Your task to perform on an android device: empty trash in google photos Image 0: 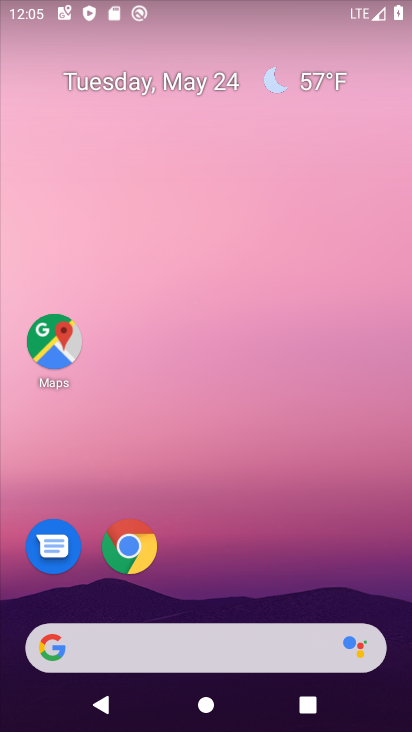
Step 0: drag from (198, 556) to (206, 160)
Your task to perform on an android device: empty trash in google photos Image 1: 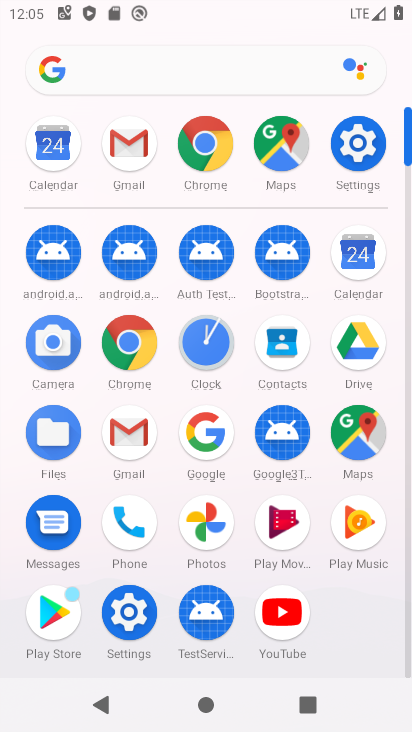
Step 1: click (193, 534)
Your task to perform on an android device: empty trash in google photos Image 2: 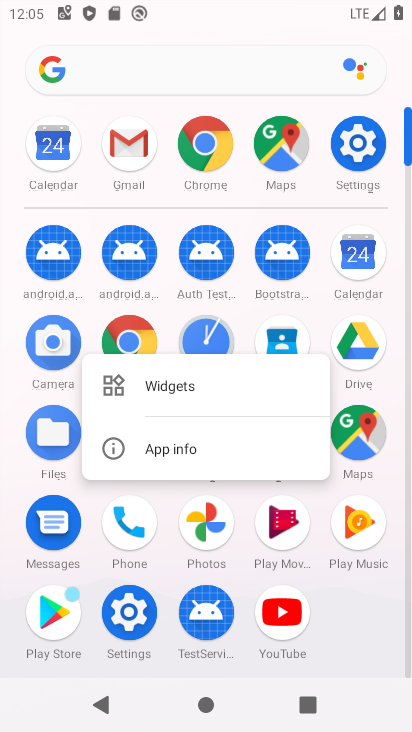
Step 2: click (117, 450)
Your task to perform on an android device: empty trash in google photos Image 3: 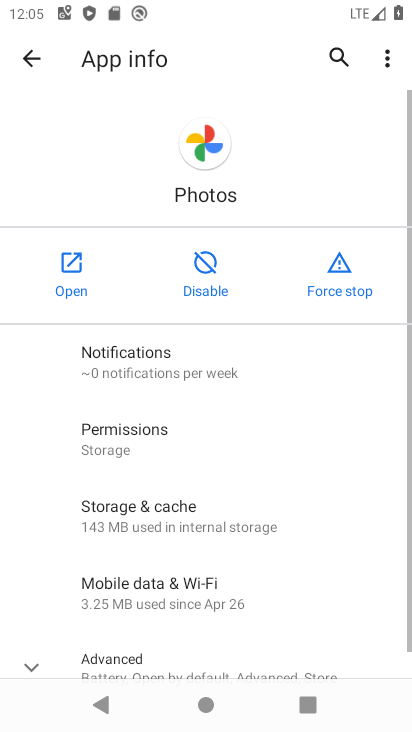
Step 3: click (84, 258)
Your task to perform on an android device: empty trash in google photos Image 4: 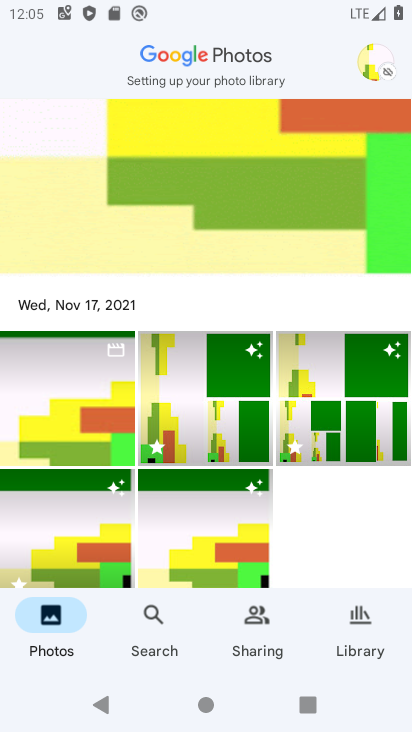
Step 4: click (348, 646)
Your task to perform on an android device: empty trash in google photos Image 5: 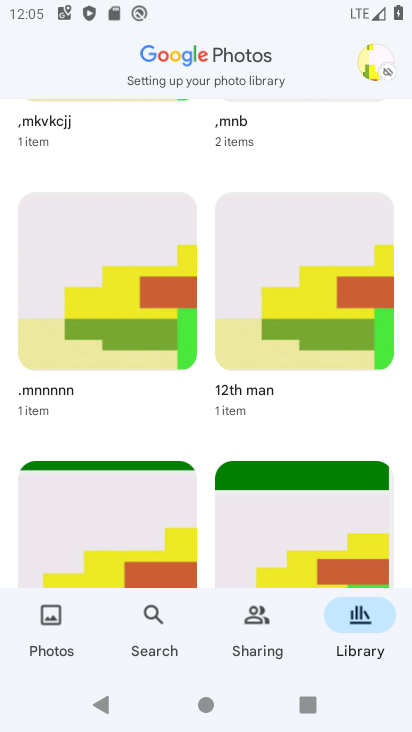
Step 5: drag from (335, 328) to (359, 729)
Your task to perform on an android device: empty trash in google photos Image 6: 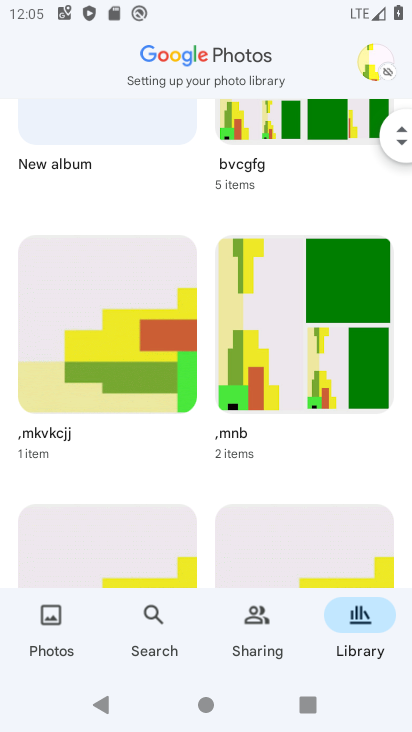
Step 6: drag from (207, 116) to (236, 666)
Your task to perform on an android device: empty trash in google photos Image 7: 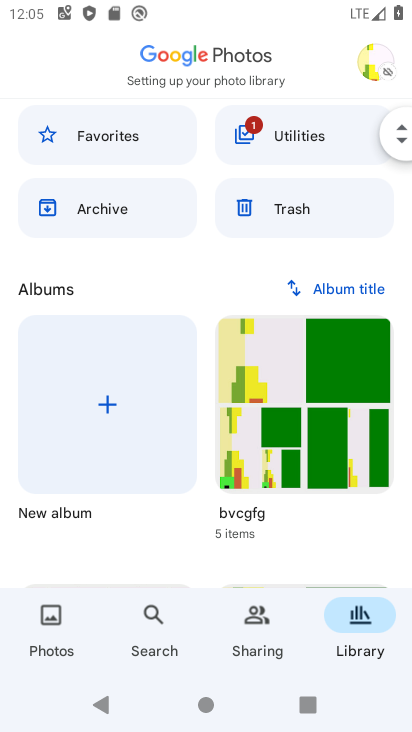
Step 7: click (269, 218)
Your task to perform on an android device: empty trash in google photos Image 8: 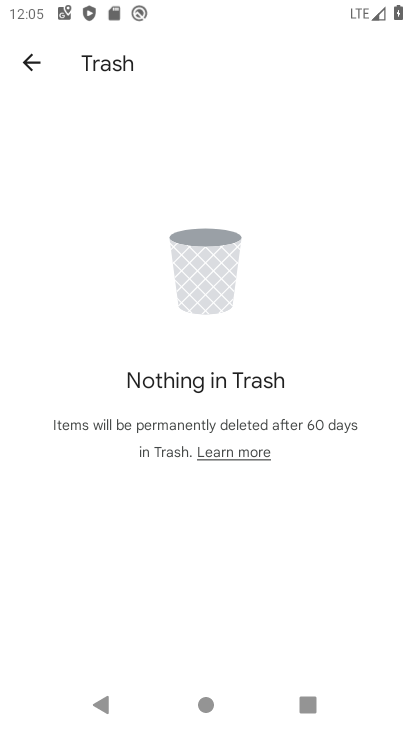
Step 8: task complete